Your task to perform on an android device: create a new album in the google photos Image 0: 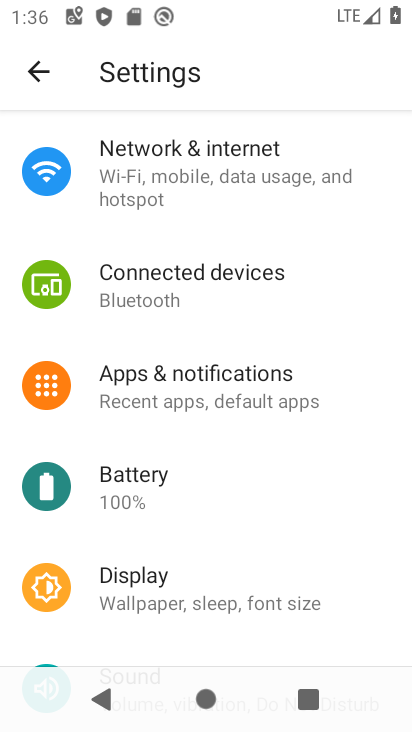
Step 0: press home button
Your task to perform on an android device: create a new album in the google photos Image 1: 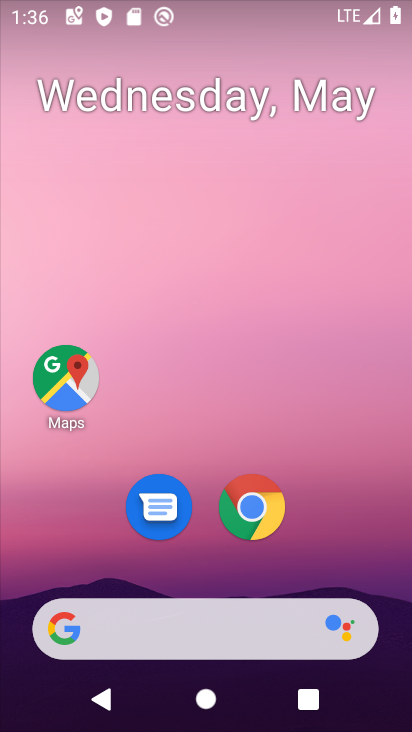
Step 1: drag from (352, 549) to (267, 146)
Your task to perform on an android device: create a new album in the google photos Image 2: 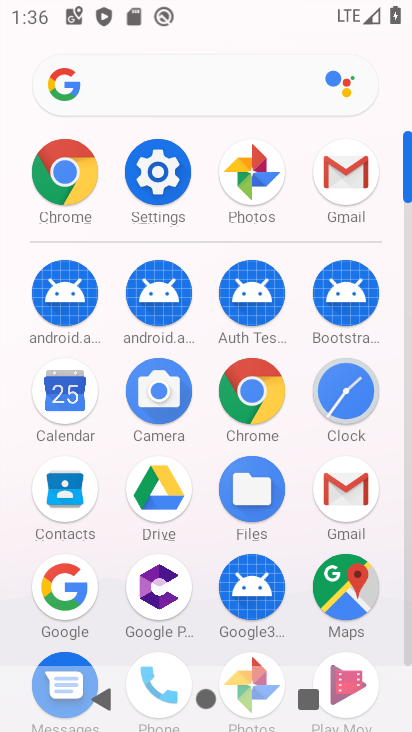
Step 2: click (246, 188)
Your task to perform on an android device: create a new album in the google photos Image 3: 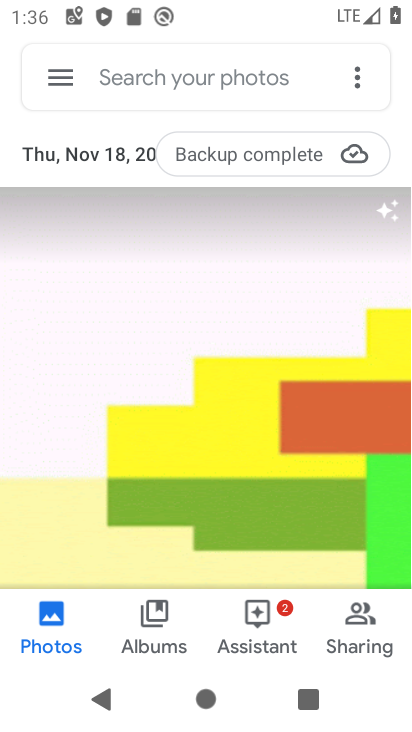
Step 3: click (146, 631)
Your task to perform on an android device: create a new album in the google photos Image 4: 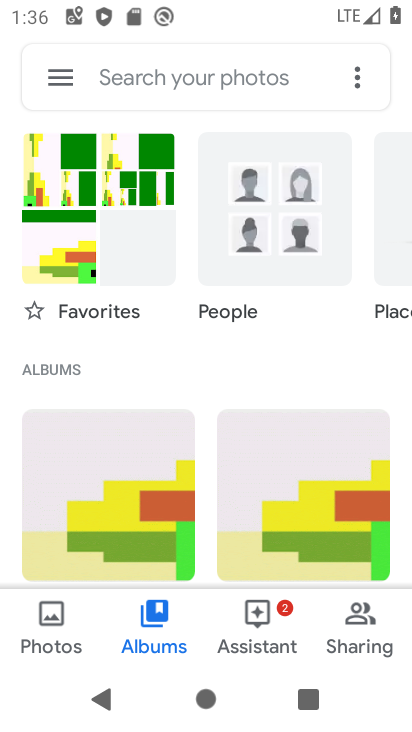
Step 4: click (286, 618)
Your task to perform on an android device: create a new album in the google photos Image 5: 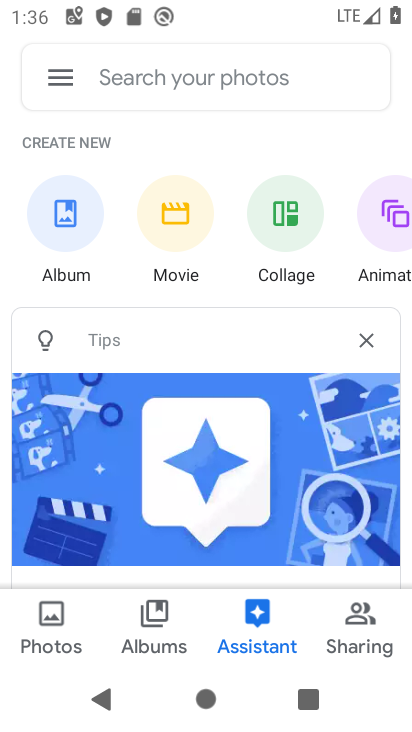
Step 5: click (78, 241)
Your task to perform on an android device: create a new album in the google photos Image 6: 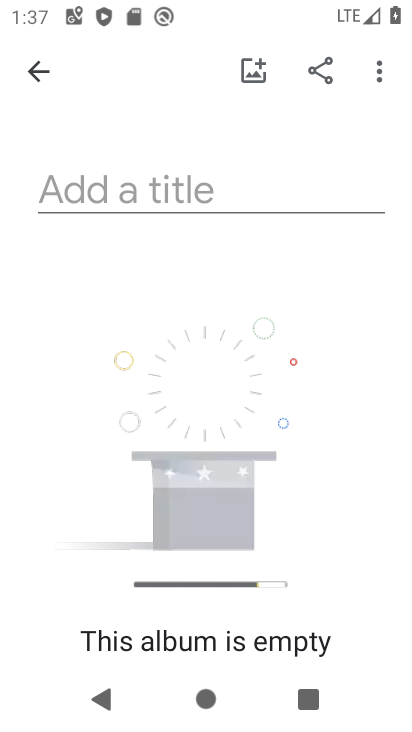
Step 6: click (278, 195)
Your task to perform on an android device: create a new album in the google photos Image 7: 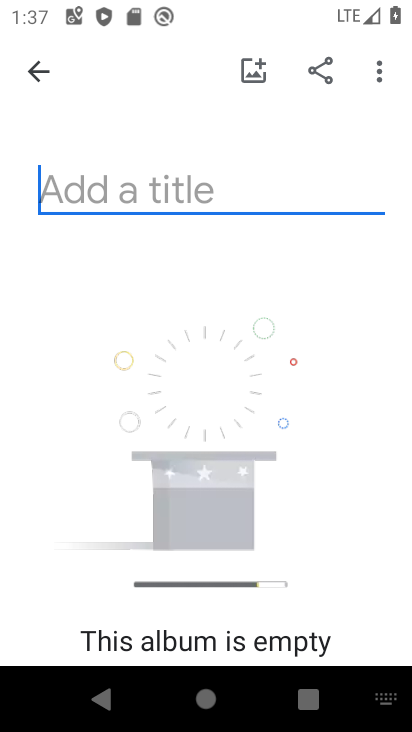
Step 7: type "bkbkhbkbk"
Your task to perform on an android device: create a new album in the google photos Image 8: 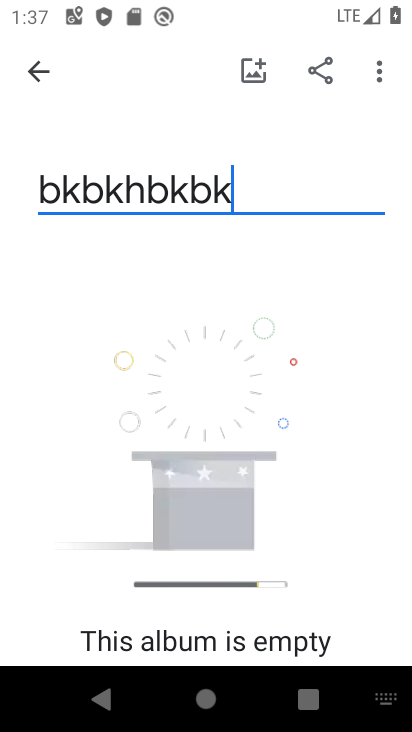
Step 8: drag from (353, 621) to (298, 275)
Your task to perform on an android device: create a new album in the google photos Image 9: 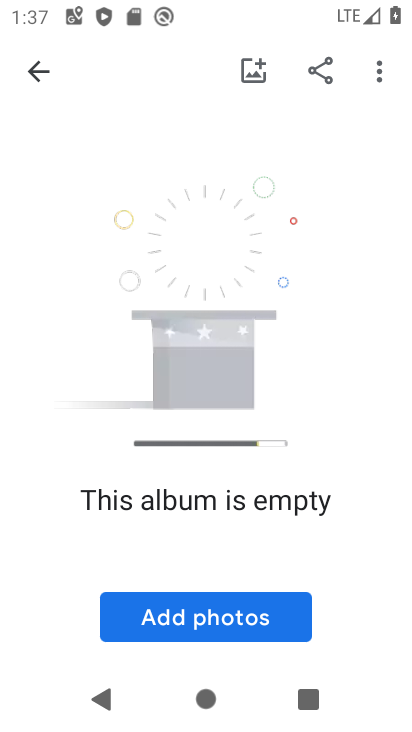
Step 9: click (266, 631)
Your task to perform on an android device: create a new album in the google photos Image 10: 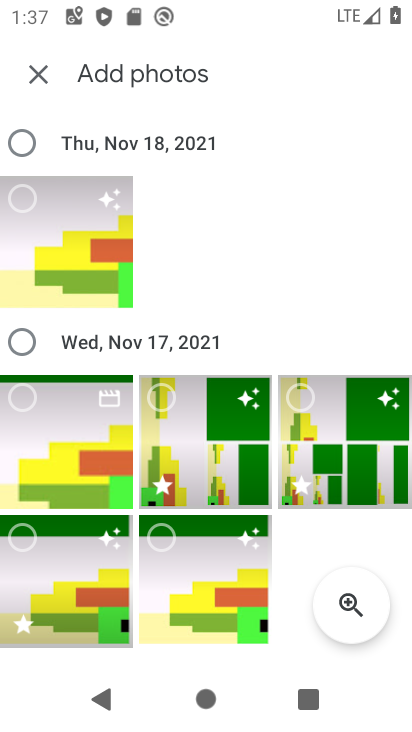
Step 10: click (190, 457)
Your task to perform on an android device: create a new album in the google photos Image 11: 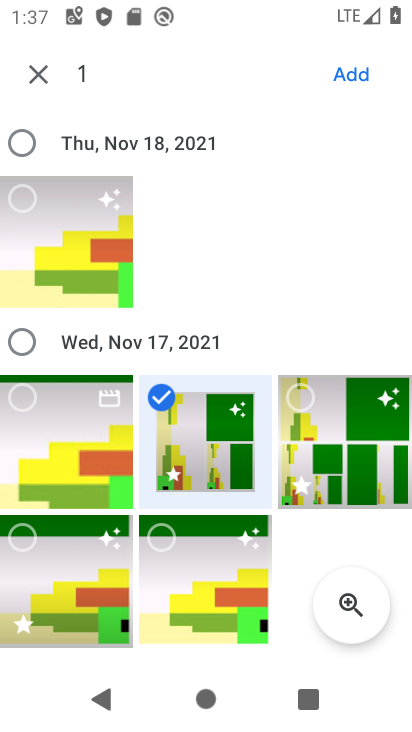
Step 11: click (364, 66)
Your task to perform on an android device: create a new album in the google photos Image 12: 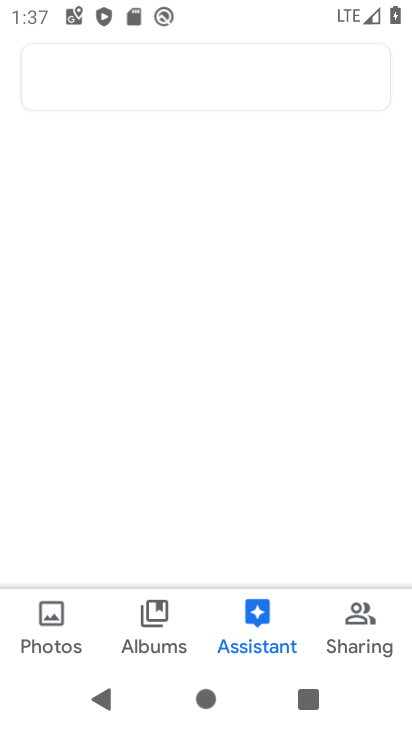
Step 12: task complete